Your task to perform on an android device: See recent photos Image 0: 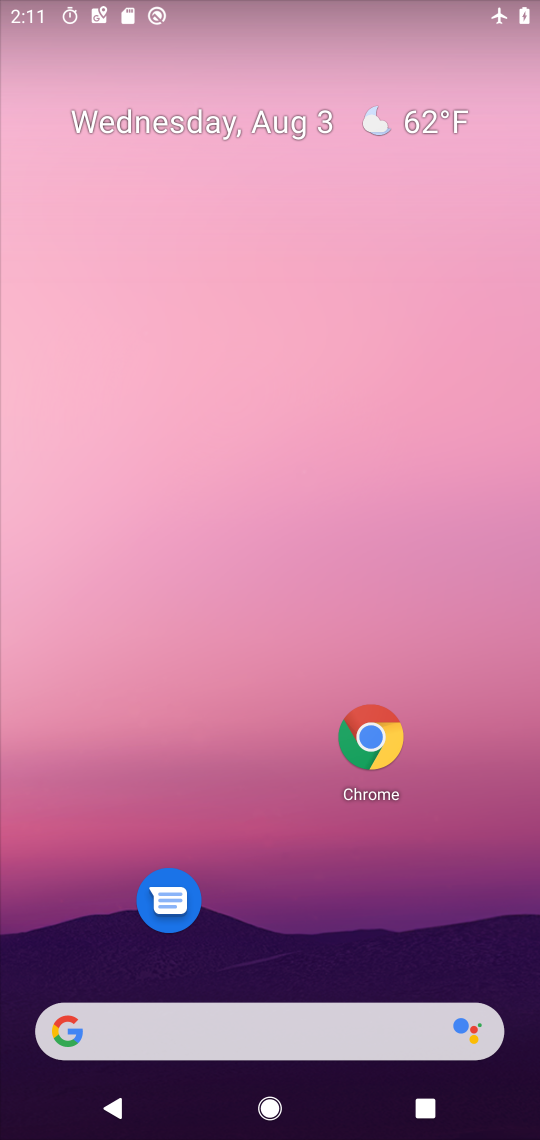
Step 0: drag from (280, 868) to (208, 160)
Your task to perform on an android device: See recent photos Image 1: 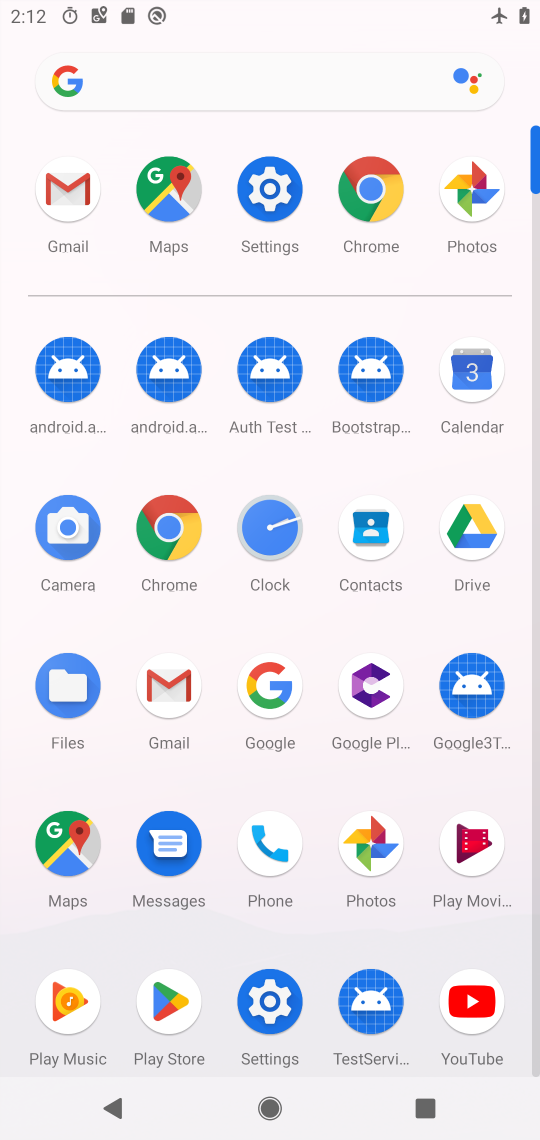
Step 1: click (363, 838)
Your task to perform on an android device: See recent photos Image 2: 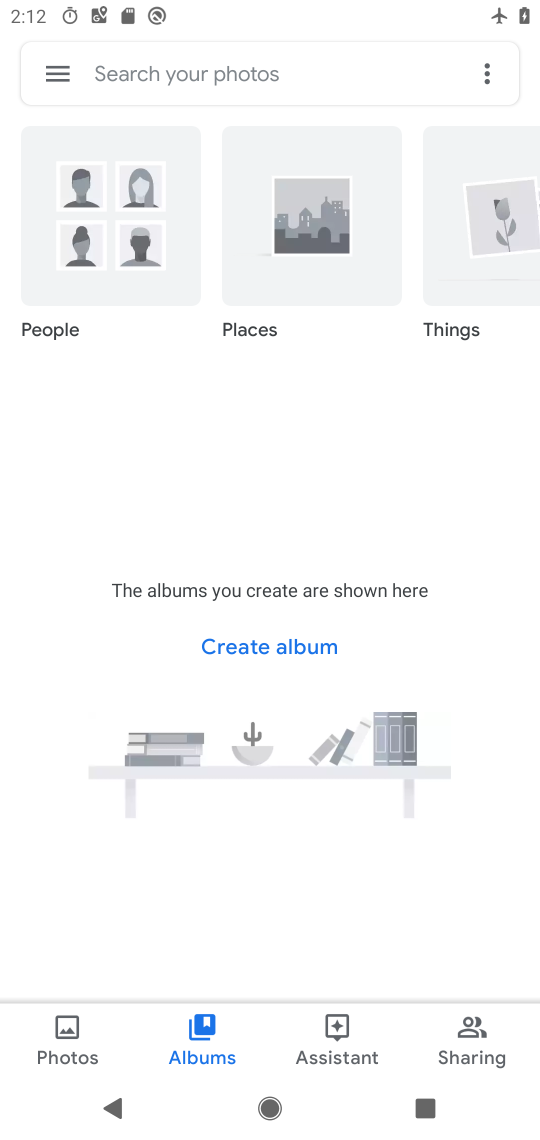
Step 2: click (69, 1068)
Your task to perform on an android device: See recent photos Image 3: 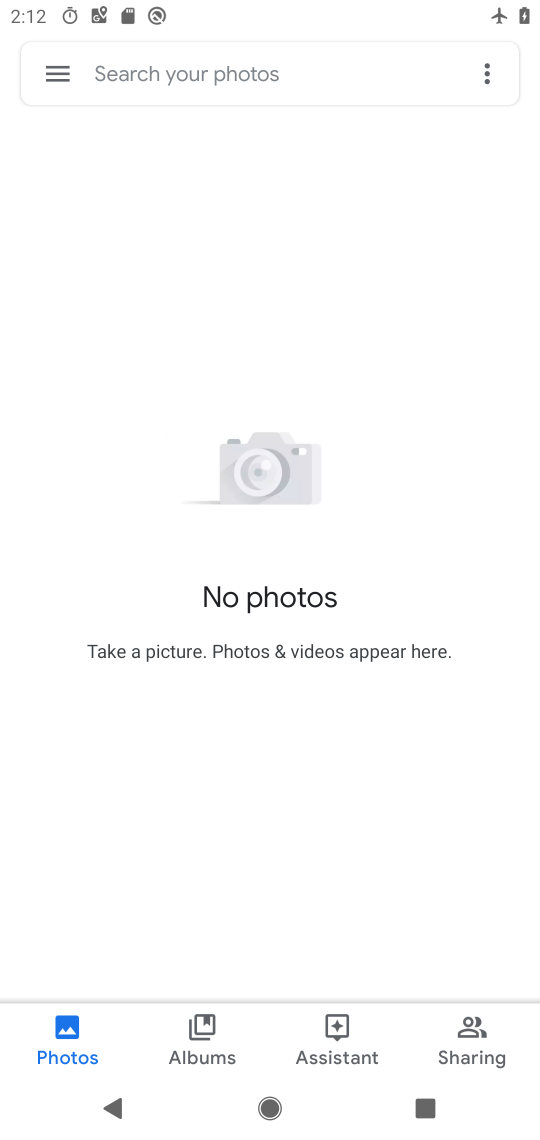
Step 3: task complete